Your task to perform on an android device: Go to accessibility settings Image 0: 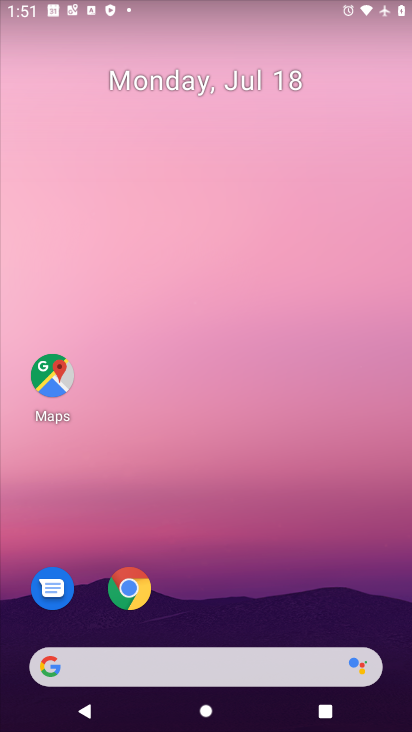
Step 0: drag from (270, 628) to (283, 144)
Your task to perform on an android device: Go to accessibility settings Image 1: 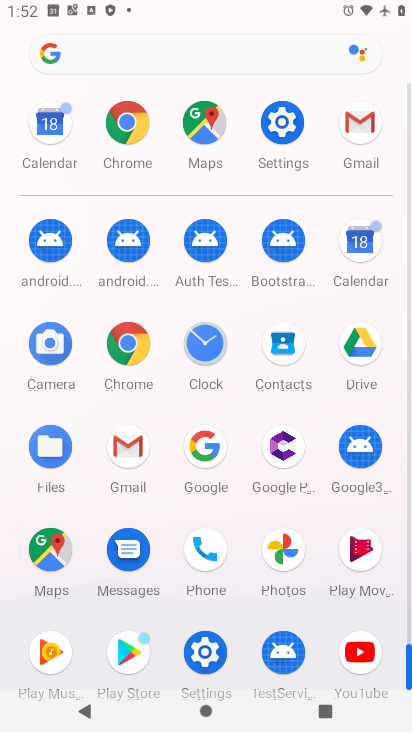
Step 1: click (277, 151)
Your task to perform on an android device: Go to accessibility settings Image 2: 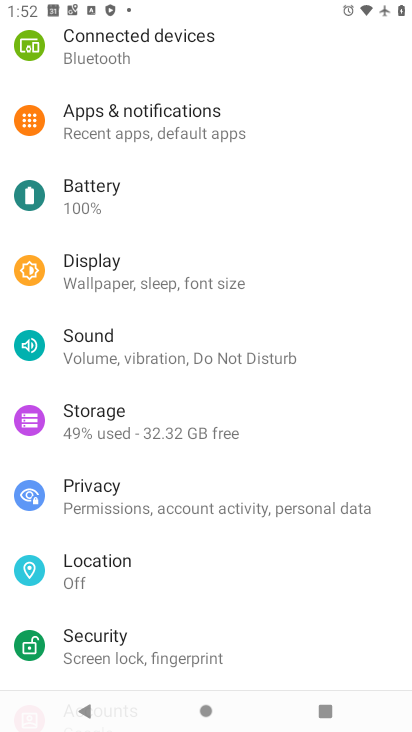
Step 2: drag from (199, 244) to (192, 643)
Your task to perform on an android device: Go to accessibility settings Image 3: 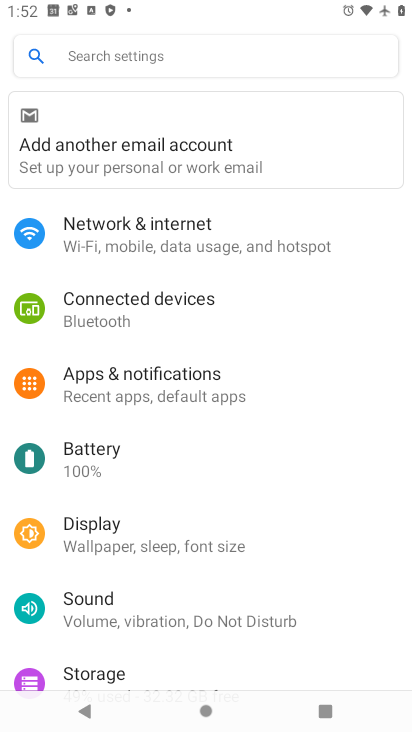
Step 3: drag from (166, 410) to (197, 89)
Your task to perform on an android device: Go to accessibility settings Image 4: 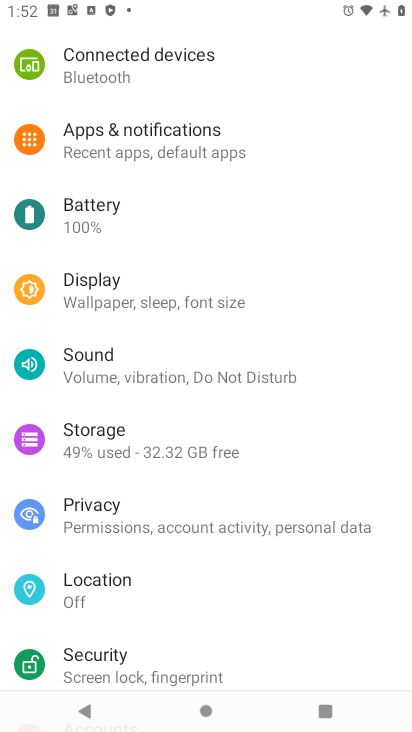
Step 4: drag from (181, 561) to (198, 270)
Your task to perform on an android device: Go to accessibility settings Image 5: 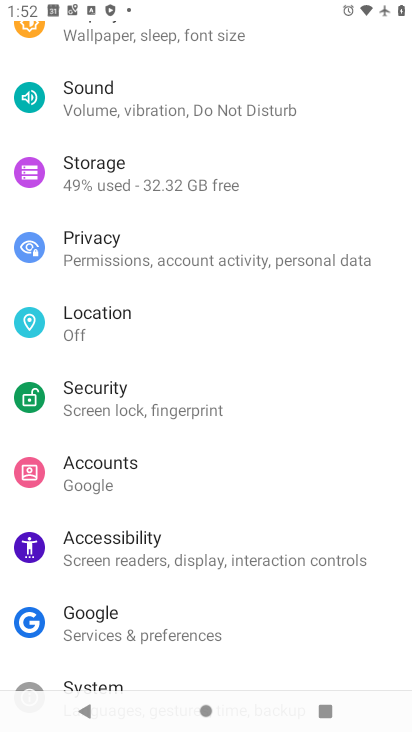
Step 5: click (165, 551)
Your task to perform on an android device: Go to accessibility settings Image 6: 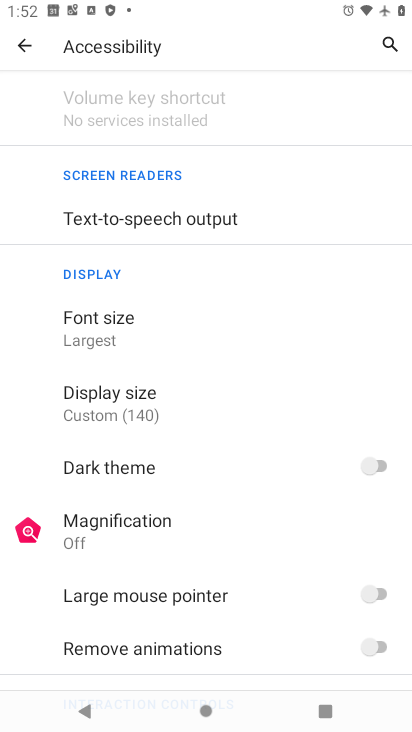
Step 6: task complete